Your task to perform on an android device: Search for sushi restaurants on Maps Image 0: 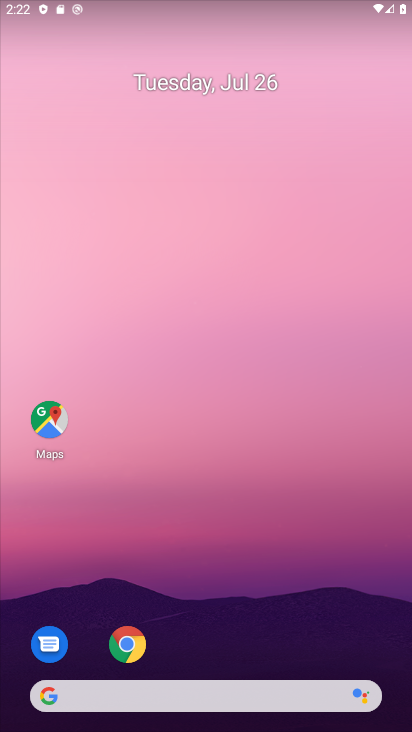
Step 0: press home button
Your task to perform on an android device: Search for sushi restaurants on Maps Image 1: 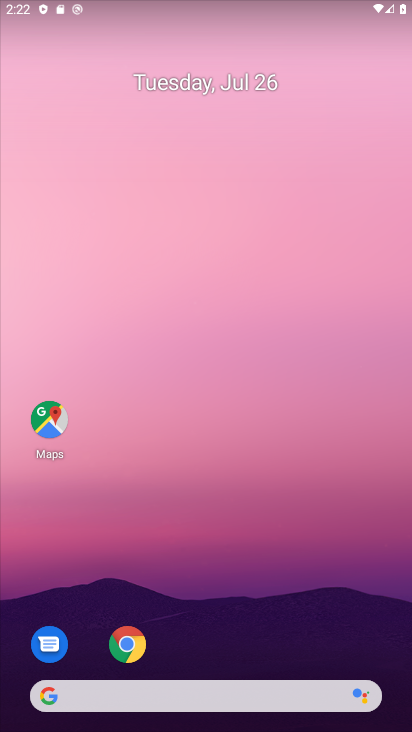
Step 1: click (43, 415)
Your task to perform on an android device: Search for sushi restaurants on Maps Image 2: 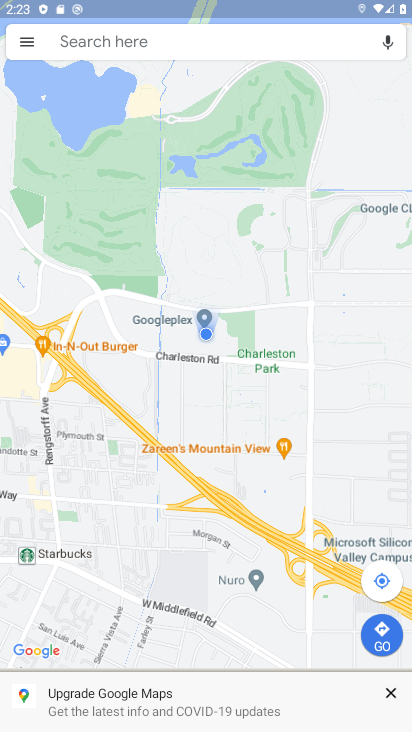
Step 2: click (122, 36)
Your task to perform on an android device: Search for sushi restaurants on Maps Image 3: 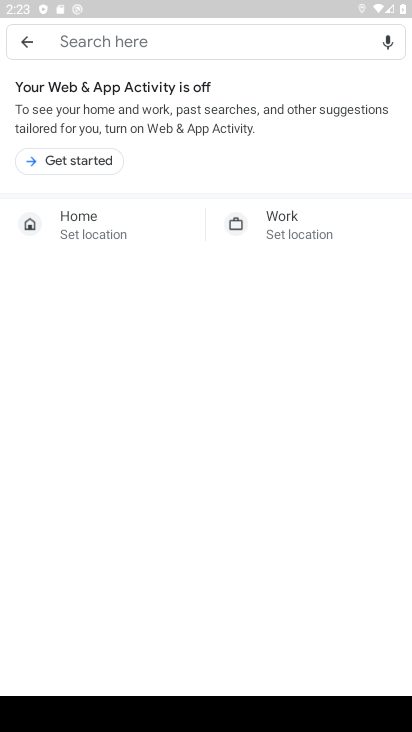
Step 3: type "sushi"
Your task to perform on an android device: Search for sushi restaurants on Maps Image 4: 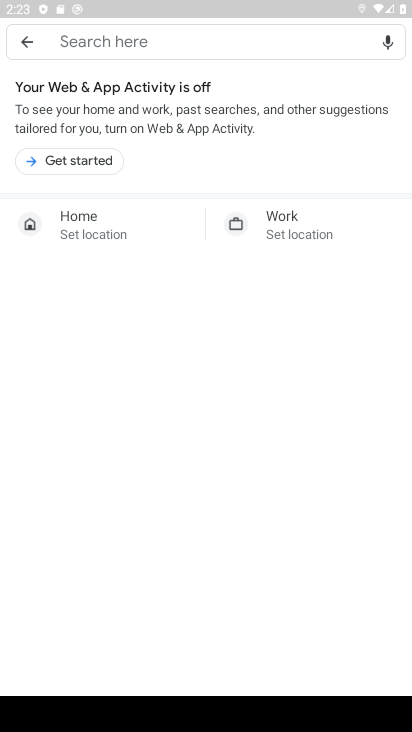
Step 4: click (91, 41)
Your task to perform on an android device: Search for sushi restaurants on Maps Image 5: 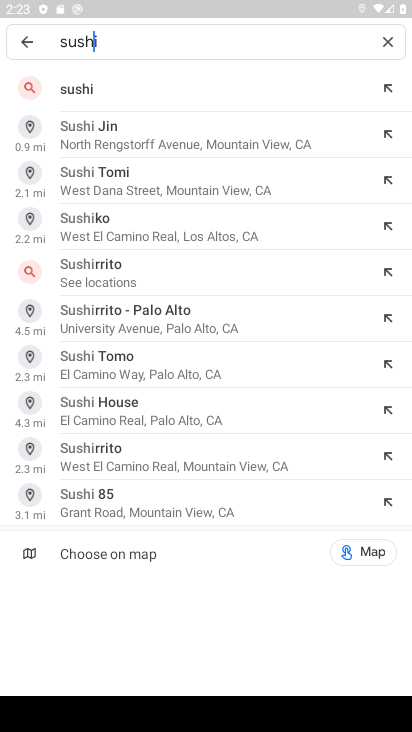
Step 5: click (66, 85)
Your task to perform on an android device: Search for sushi restaurants on Maps Image 6: 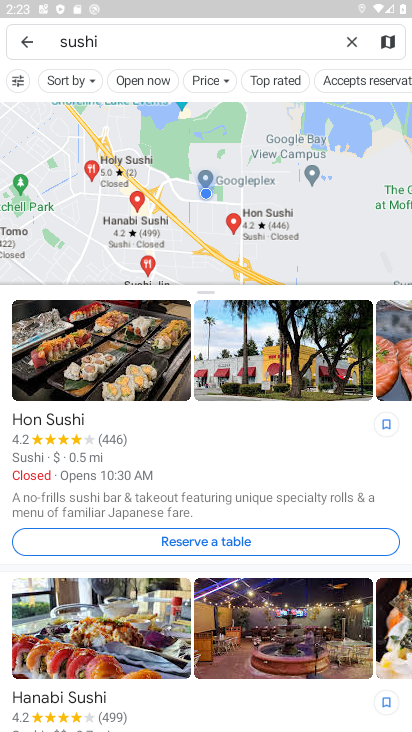
Step 6: task complete